Your task to perform on an android device: Check out the top rated books on Goodreads. Image 0: 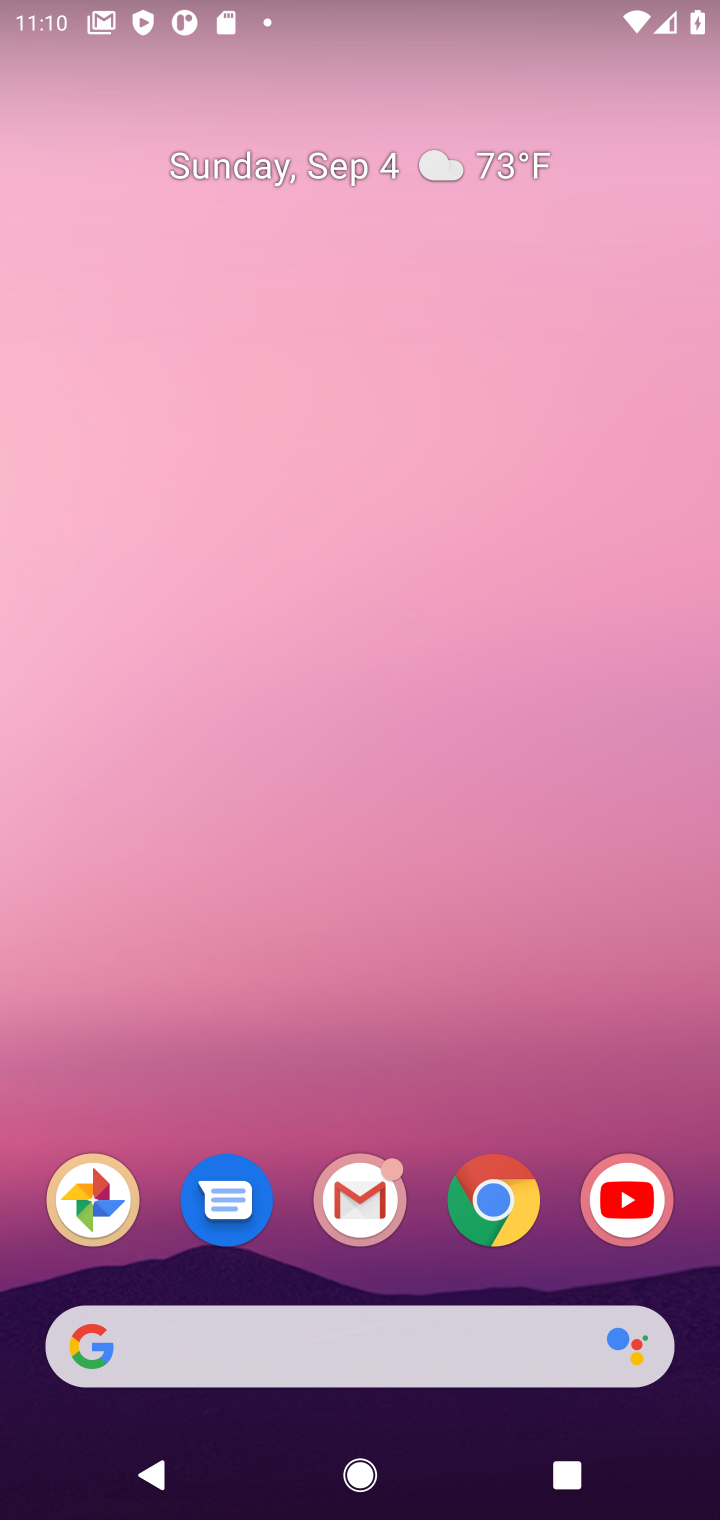
Step 0: click (525, 661)
Your task to perform on an android device: Check out the top rated books on Goodreads. Image 1: 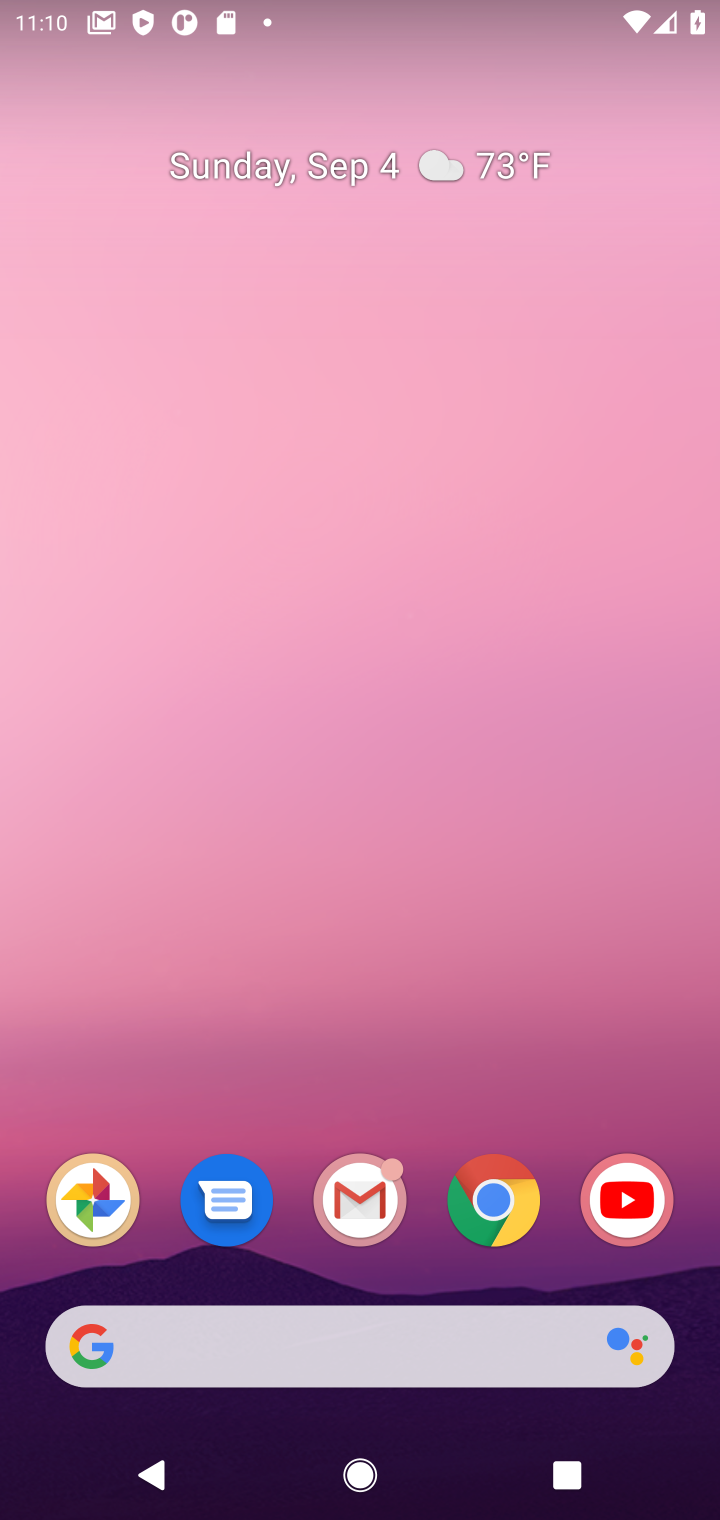
Step 1: click (367, 401)
Your task to perform on an android device: Check out the top rated books on Goodreads. Image 2: 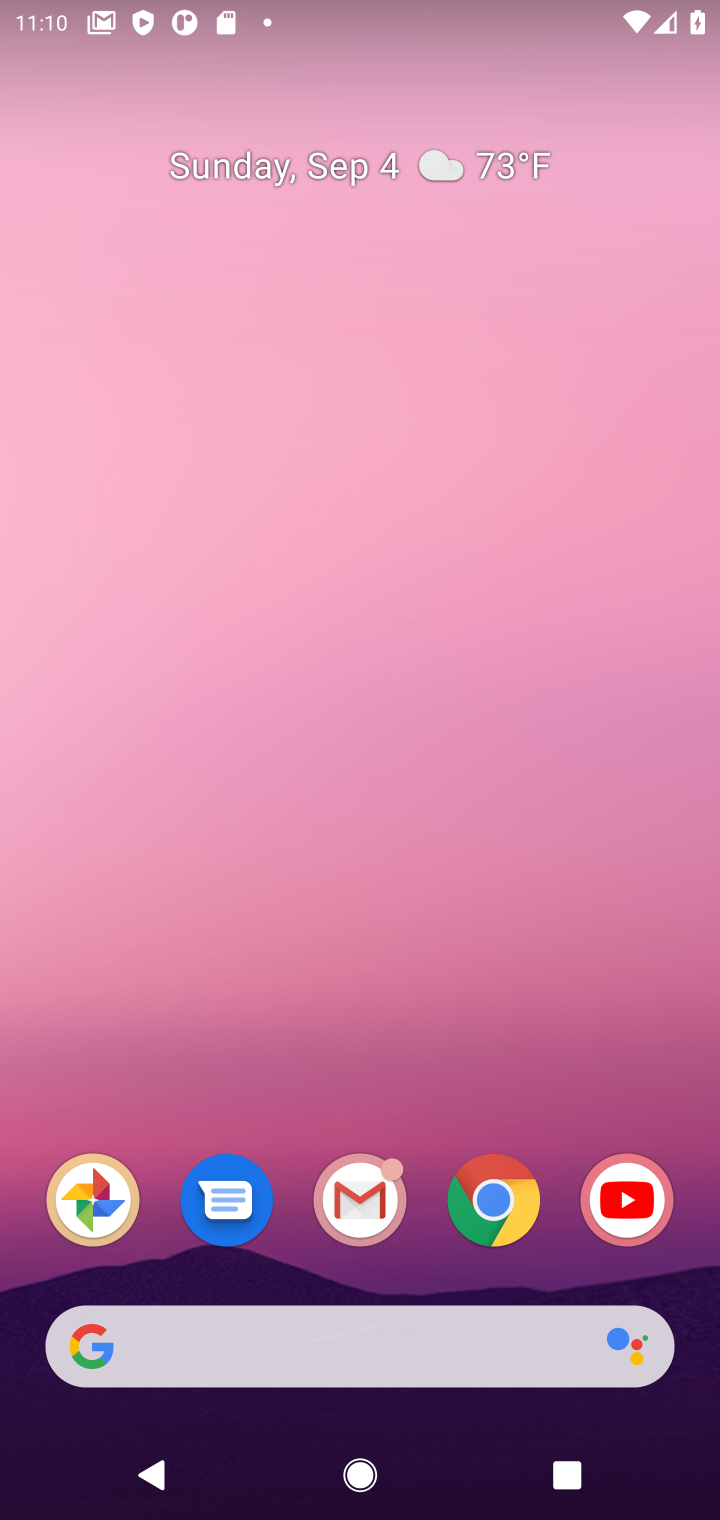
Step 2: drag from (272, 1409) to (357, 677)
Your task to perform on an android device: Check out the top rated books on Goodreads. Image 3: 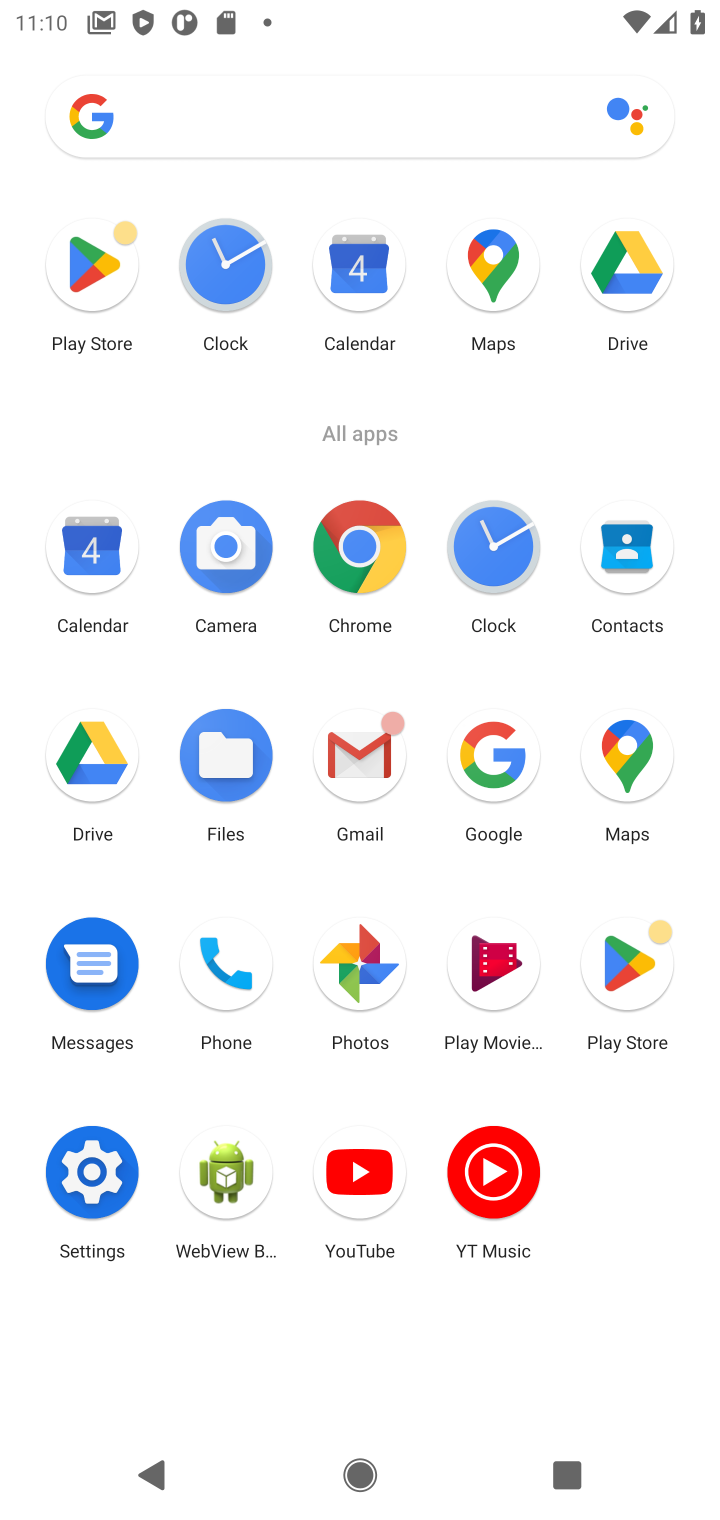
Step 3: click (374, 561)
Your task to perform on an android device: Check out the top rated books on Goodreads. Image 4: 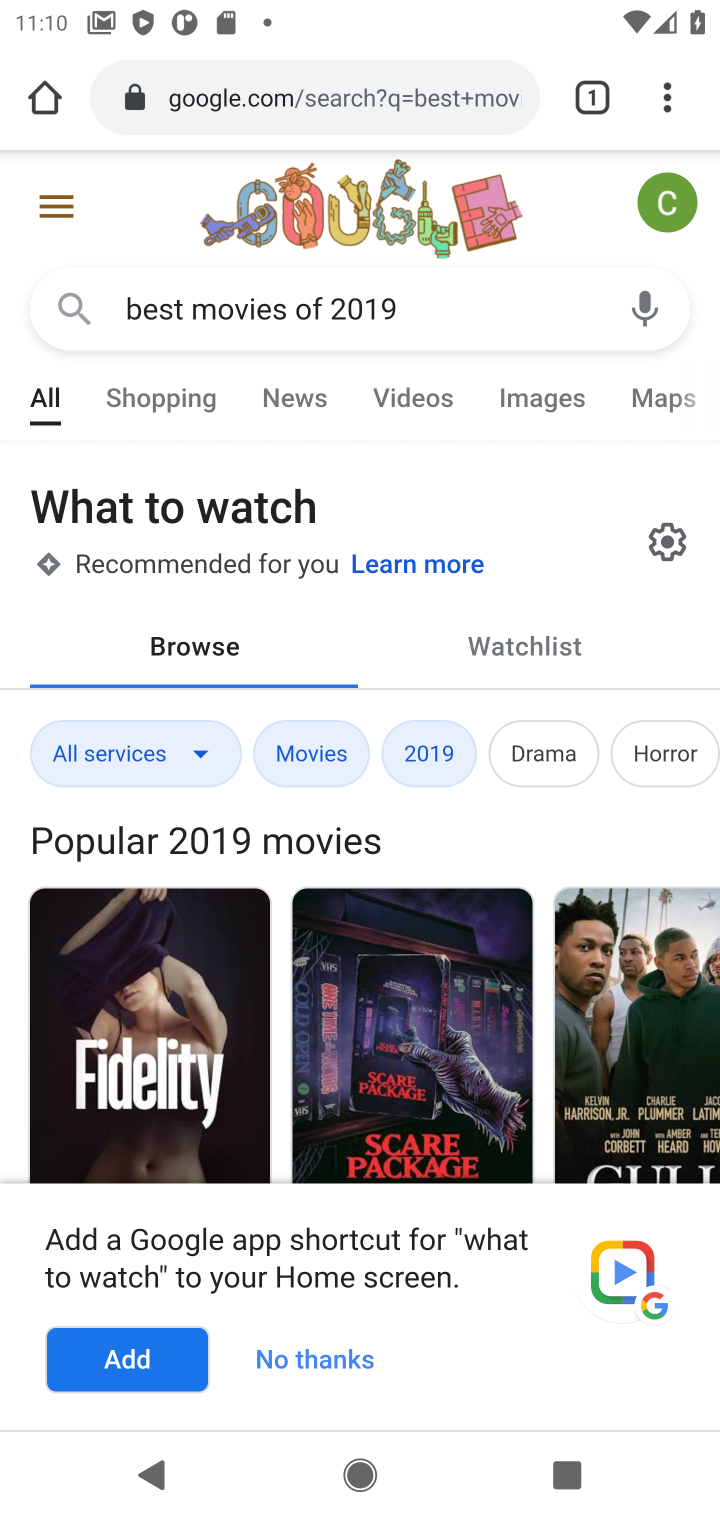
Step 4: click (487, 89)
Your task to perform on an android device: Check out the top rated books on Goodreads. Image 5: 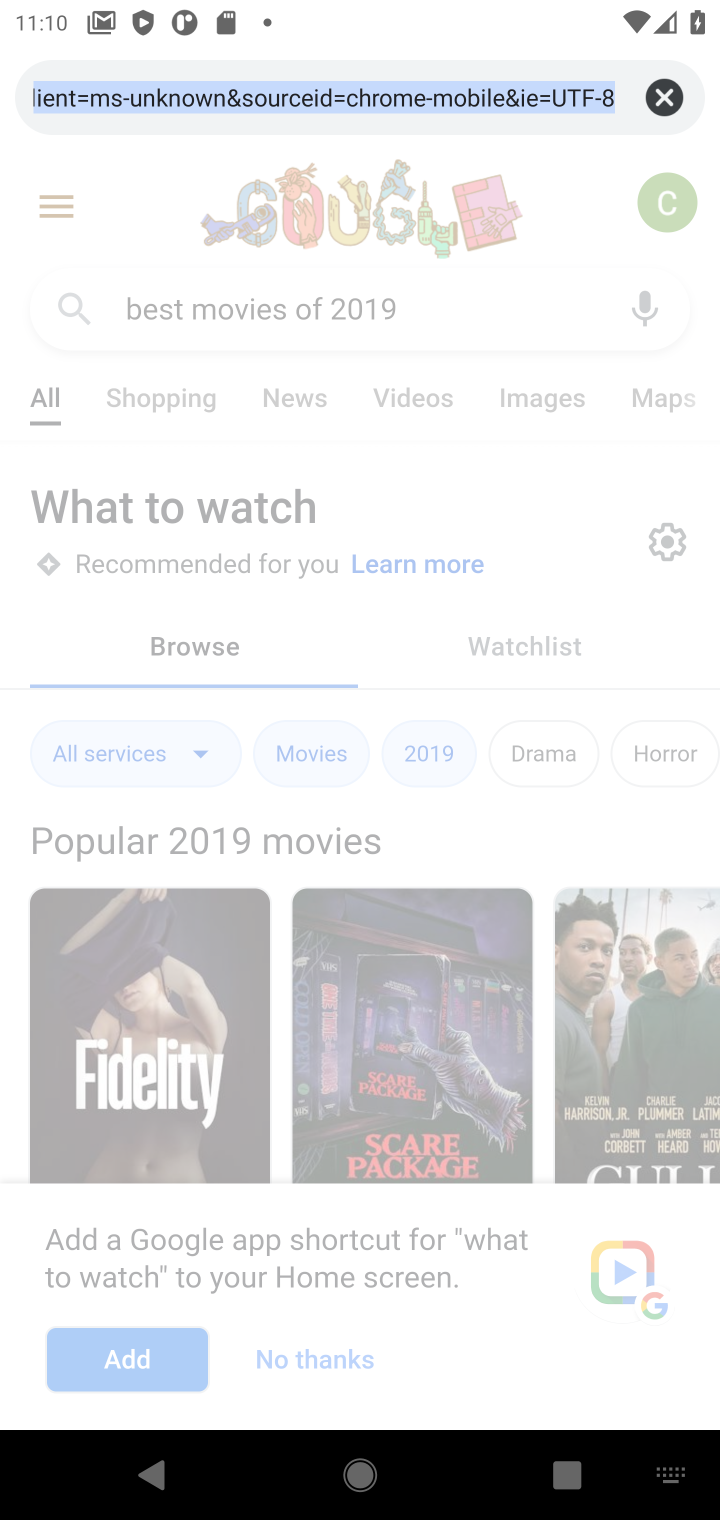
Step 5: type "goodreads"
Your task to perform on an android device: Check out the top rated books on Goodreads. Image 6: 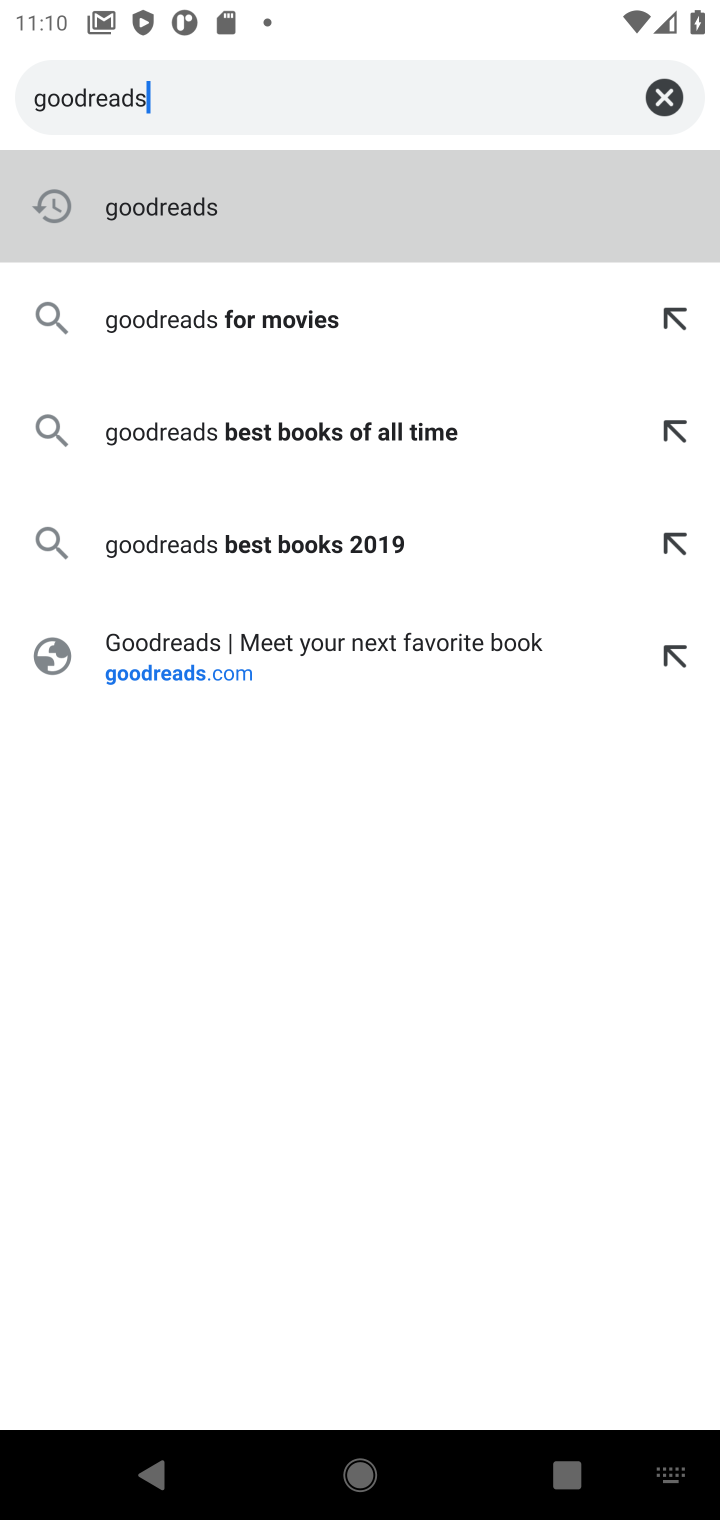
Step 6: click (270, 179)
Your task to perform on an android device: Check out the top rated books on Goodreads. Image 7: 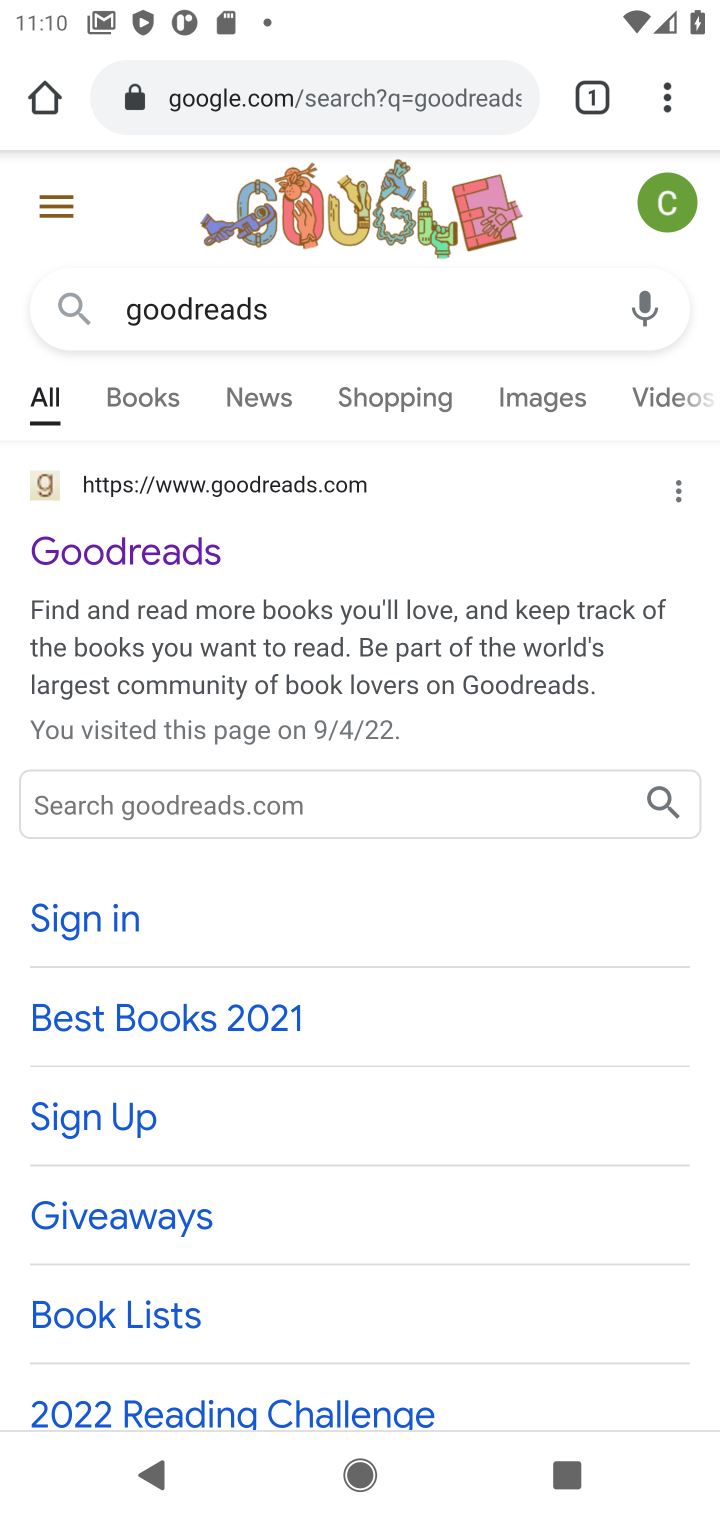
Step 7: click (152, 551)
Your task to perform on an android device: Check out the top rated books on Goodreads. Image 8: 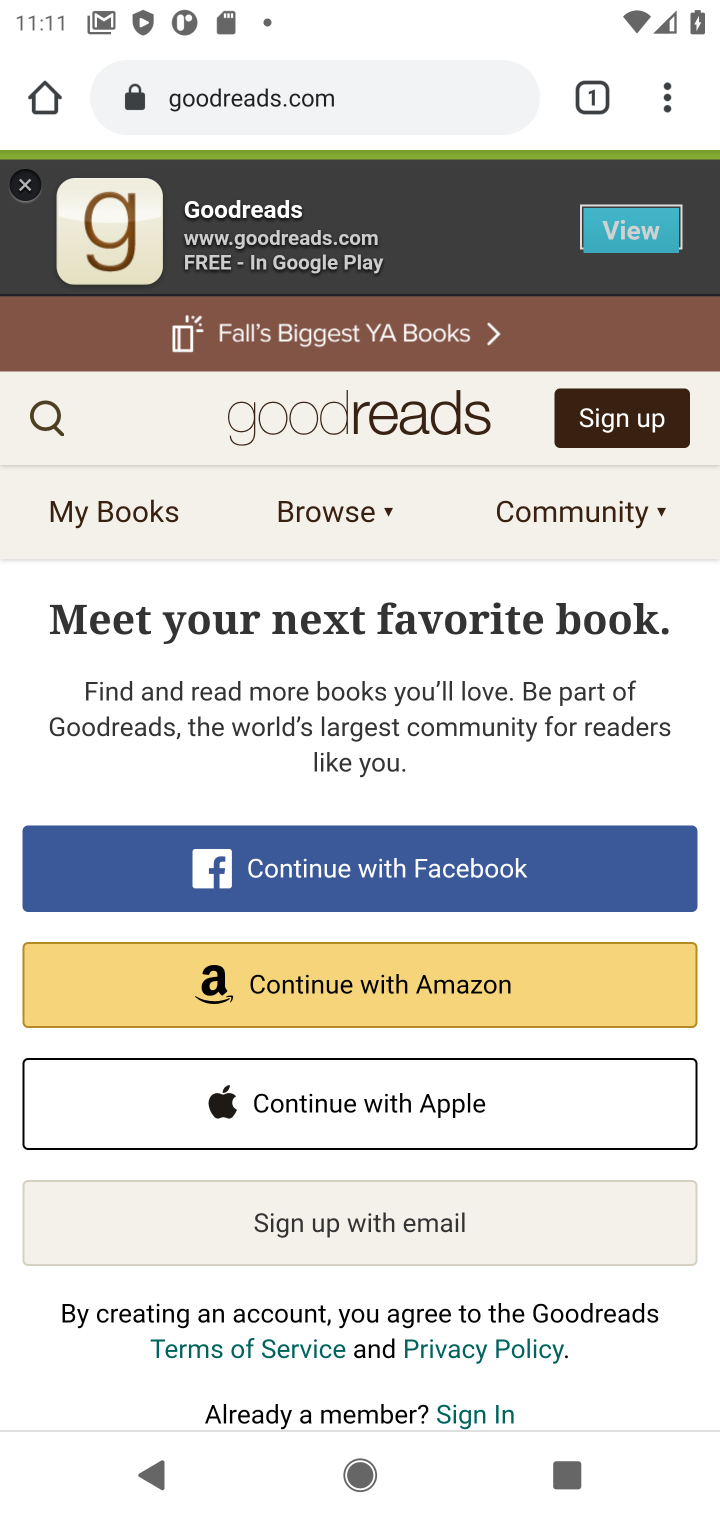
Step 8: click (51, 426)
Your task to perform on an android device: Check out the top rated books on Goodreads. Image 9: 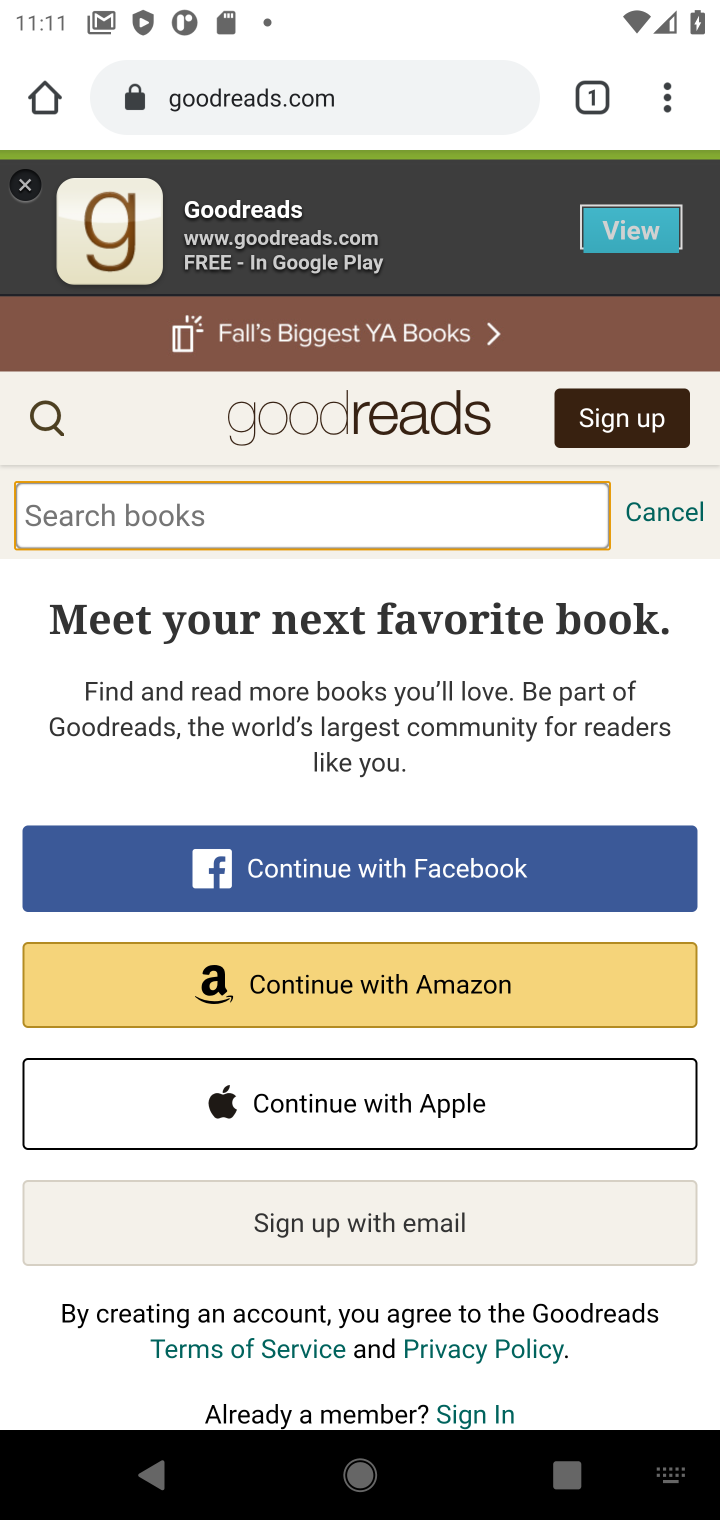
Step 9: type "top rated books"
Your task to perform on an android device: Check out the top rated books on Goodreads. Image 10: 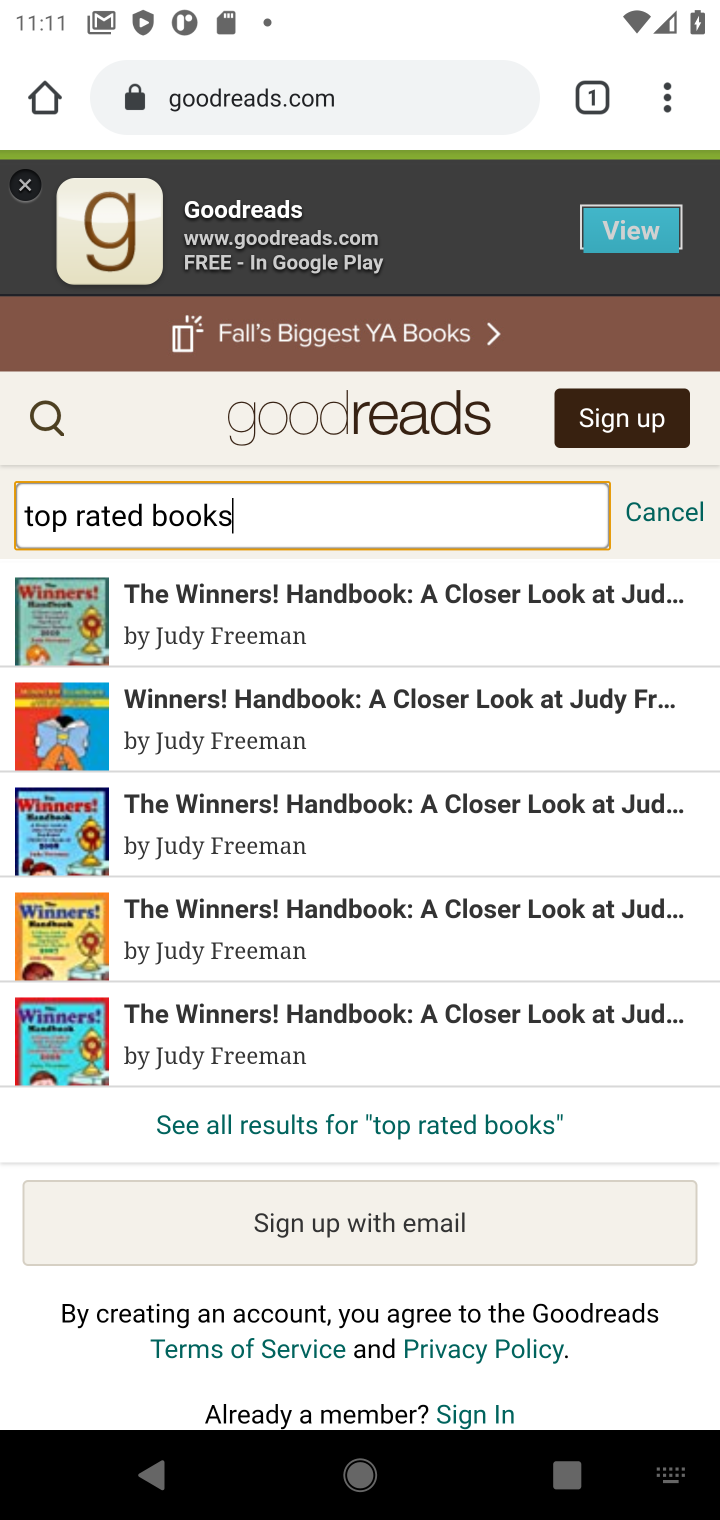
Step 10: task complete